Your task to perform on an android device: add a contact in the contacts app Image 0: 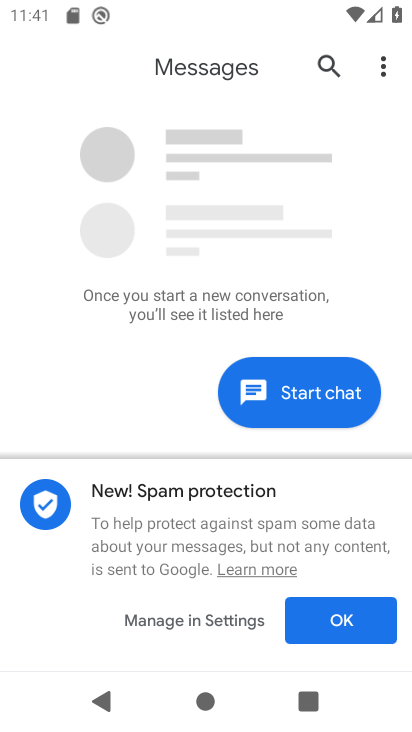
Step 0: press home button
Your task to perform on an android device: add a contact in the contacts app Image 1: 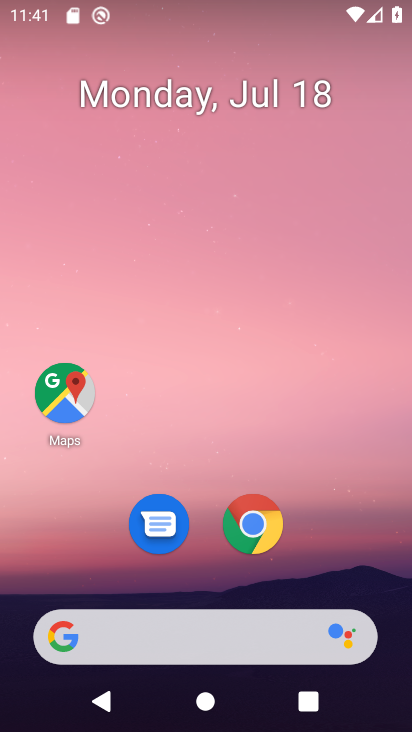
Step 1: drag from (319, 509) to (352, 33)
Your task to perform on an android device: add a contact in the contacts app Image 2: 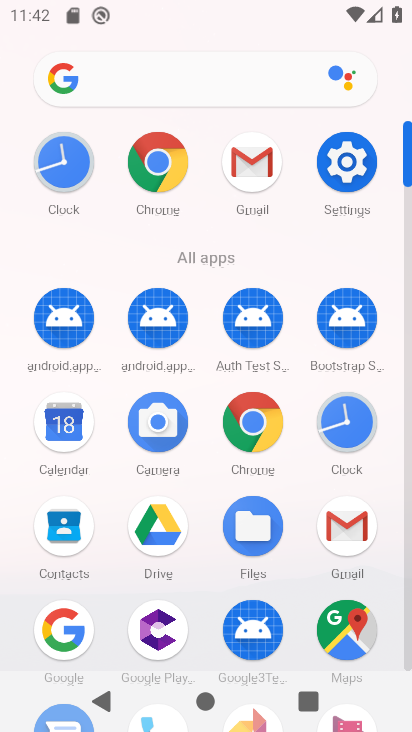
Step 2: click (57, 527)
Your task to perform on an android device: add a contact in the contacts app Image 3: 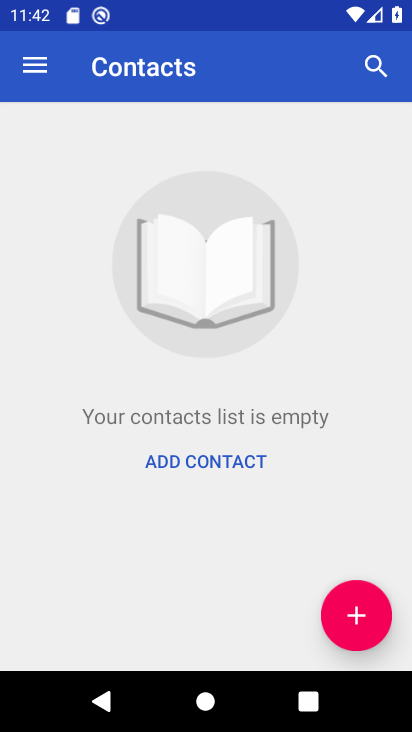
Step 3: click (348, 616)
Your task to perform on an android device: add a contact in the contacts app Image 4: 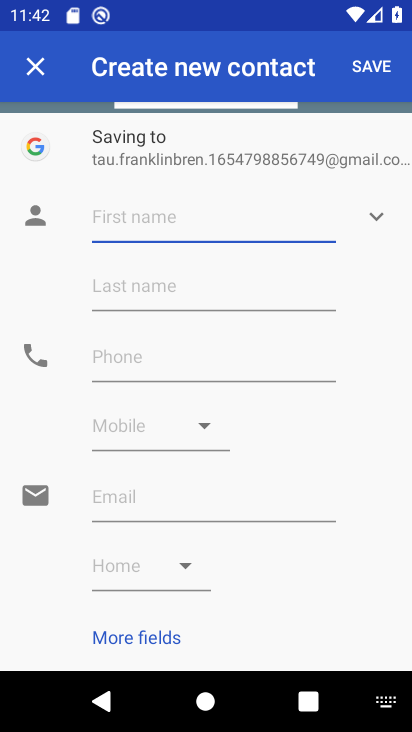
Step 4: type "Shri Ram"
Your task to perform on an android device: add a contact in the contacts app Image 5: 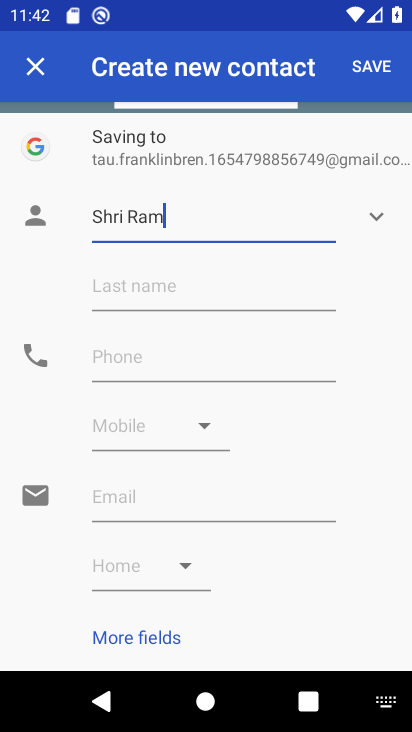
Step 5: click (166, 355)
Your task to perform on an android device: add a contact in the contacts app Image 6: 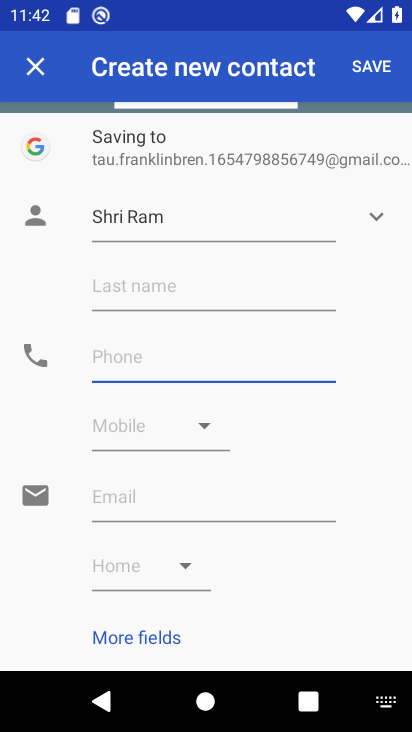
Step 6: type "9199977553311"
Your task to perform on an android device: add a contact in the contacts app Image 7: 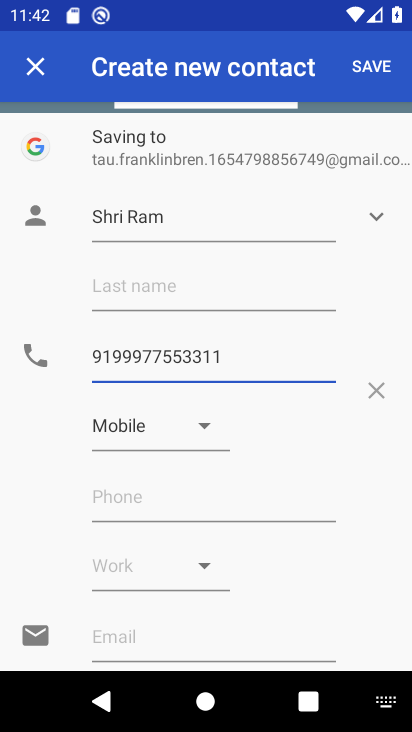
Step 7: click (368, 67)
Your task to perform on an android device: add a contact in the contacts app Image 8: 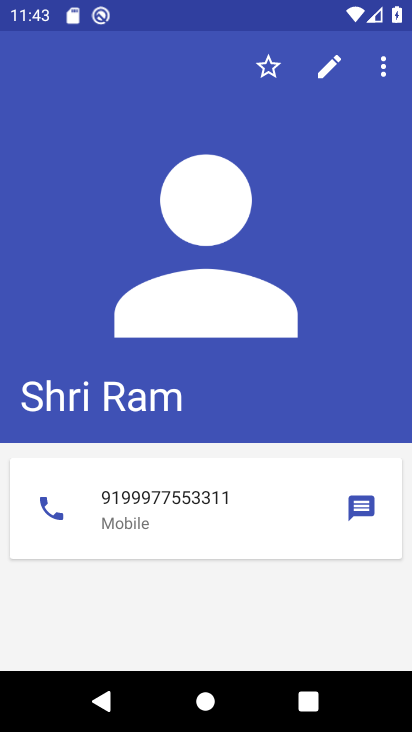
Step 8: task complete